Your task to perform on an android device: open app "Booking.com: Hotels and more" (install if not already installed) and go to login screen Image 0: 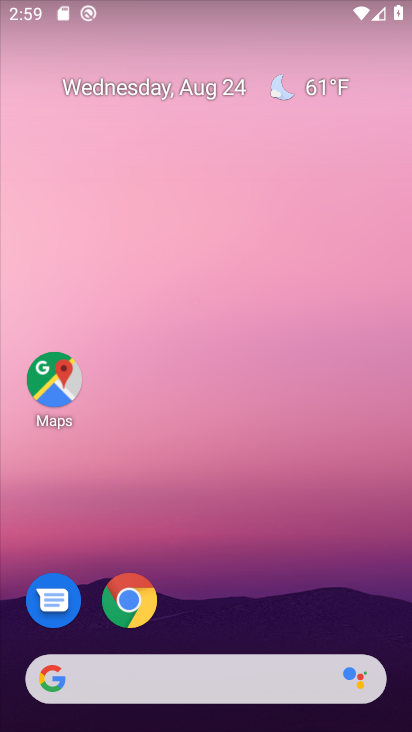
Step 0: drag from (203, 606) to (337, 13)
Your task to perform on an android device: open app "Booking.com: Hotels and more" (install if not already installed) and go to login screen Image 1: 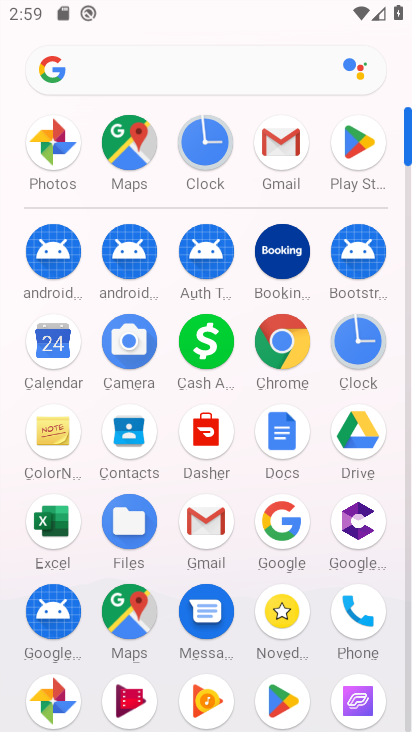
Step 1: click (358, 148)
Your task to perform on an android device: open app "Booking.com: Hotels and more" (install if not already installed) and go to login screen Image 2: 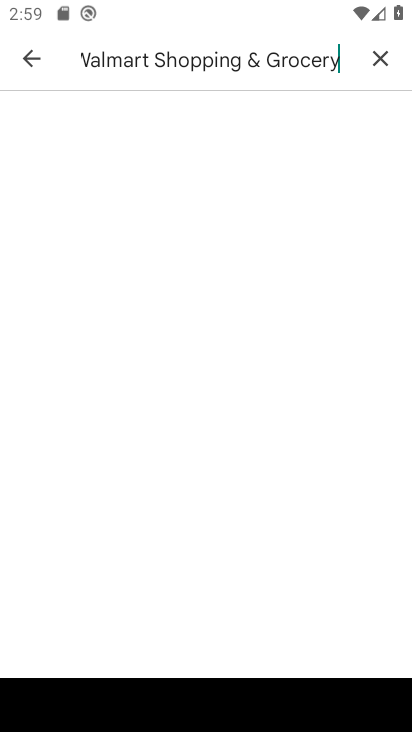
Step 2: click (379, 54)
Your task to perform on an android device: open app "Booking.com: Hotels and more" (install if not already installed) and go to login screen Image 3: 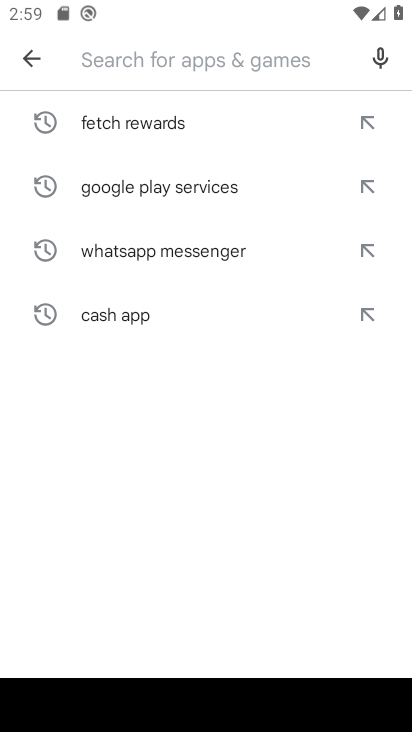
Step 3: click (134, 53)
Your task to perform on an android device: open app "Booking.com: Hotels and more" (install if not already installed) and go to login screen Image 4: 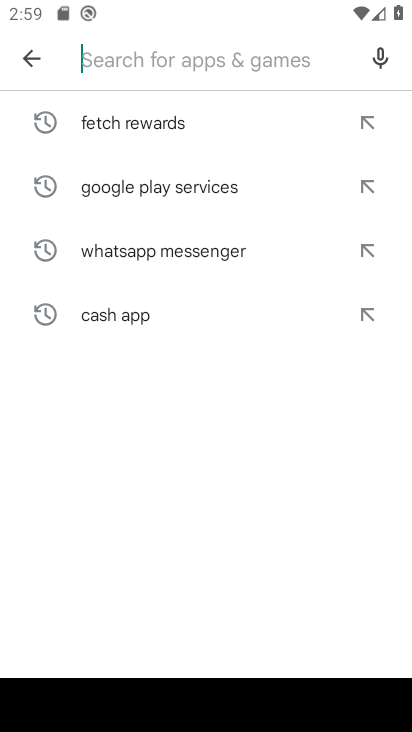
Step 4: type "Booking.com: Hotels and more"
Your task to perform on an android device: open app "Booking.com: Hotels and more" (install if not already installed) and go to login screen Image 5: 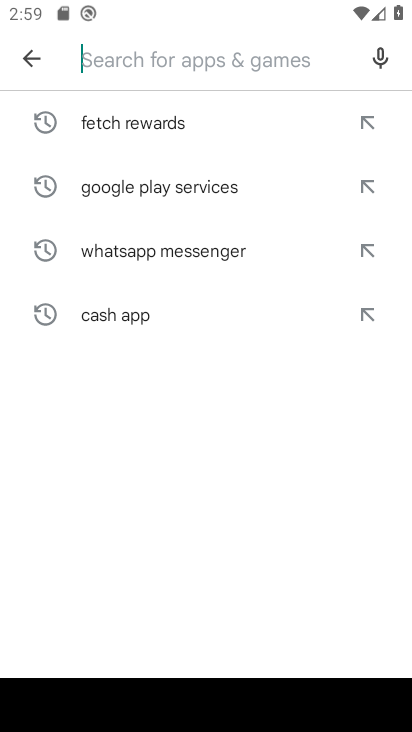
Step 5: click (275, 521)
Your task to perform on an android device: open app "Booking.com: Hotels and more" (install if not already installed) and go to login screen Image 6: 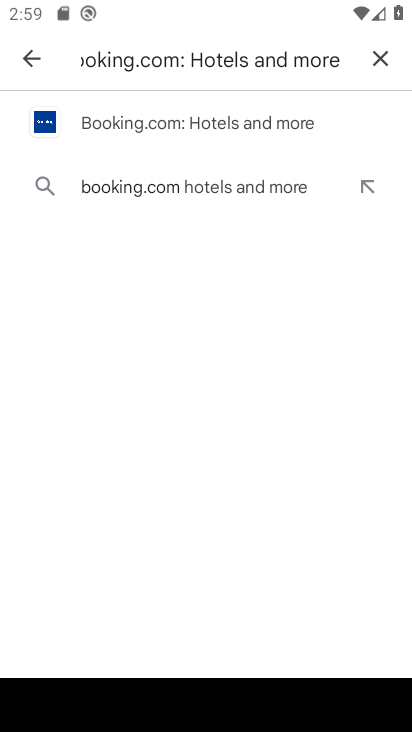
Step 6: click (192, 120)
Your task to perform on an android device: open app "Booking.com: Hotels and more" (install if not already installed) and go to login screen Image 7: 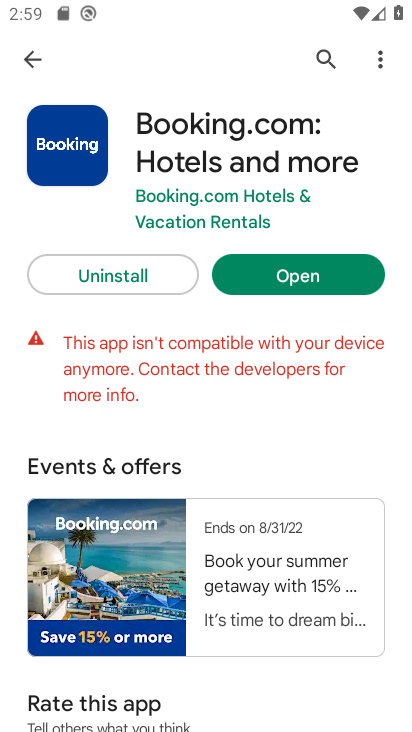
Step 7: click (276, 276)
Your task to perform on an android device: open app "Booking.com: Hotels and more" (install if not already installed) and go to login screen Image 8: 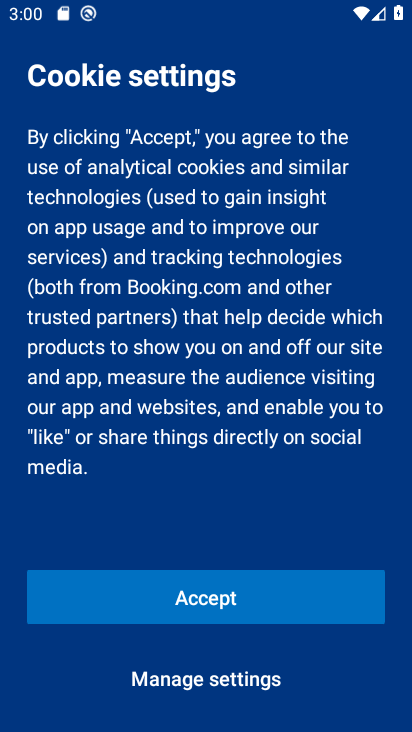
Step 8: click (231, 609)
Your task to perform on an android device: open app "Booking.com: Hotels and more" (install if not already installed) and go to login screen Image 9: 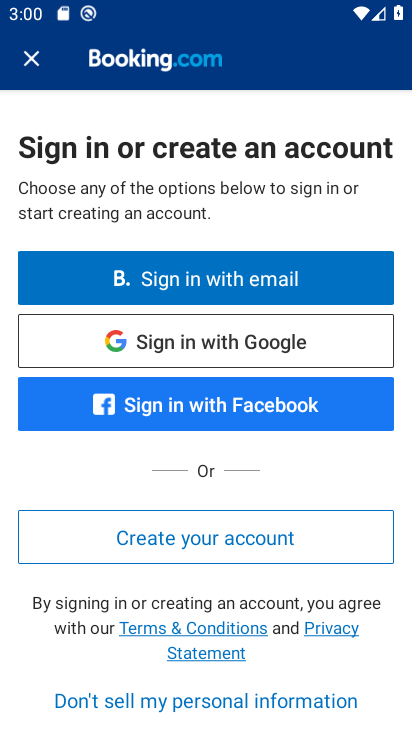
Step 9: click (169, 278)
Your task to perform on an android device: open app "Booking.com: Hotels and more" (install if not already installed) and go to login screen Image 10: 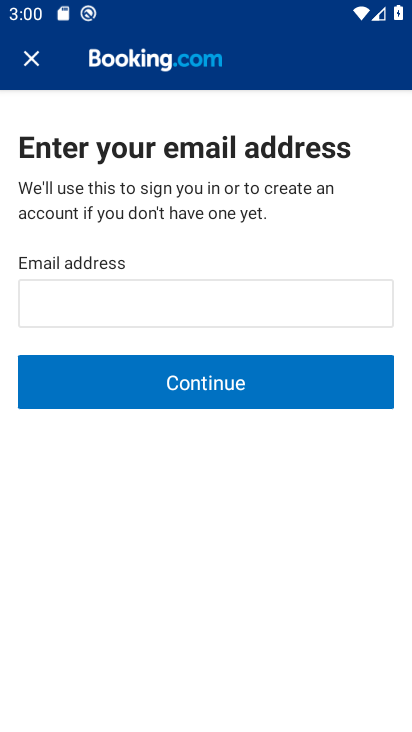
Step 10: task complete